Your task to perform on an android device: turn on showing notifications on the lock screen Image 0: 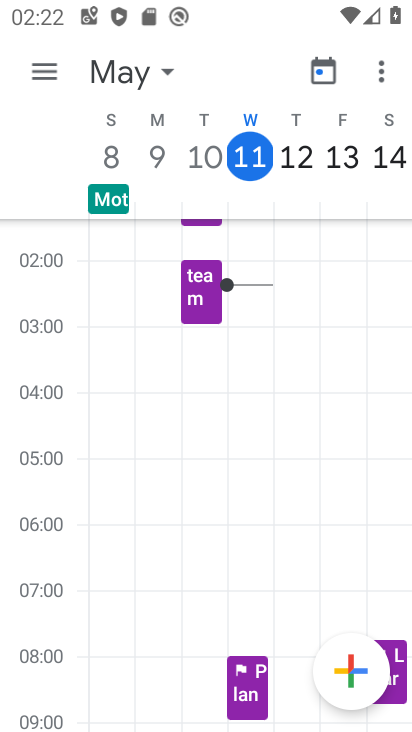
Step 0: press back button
Your task to perform on an android device: turn on showing notifications on the lock screen Image 1: 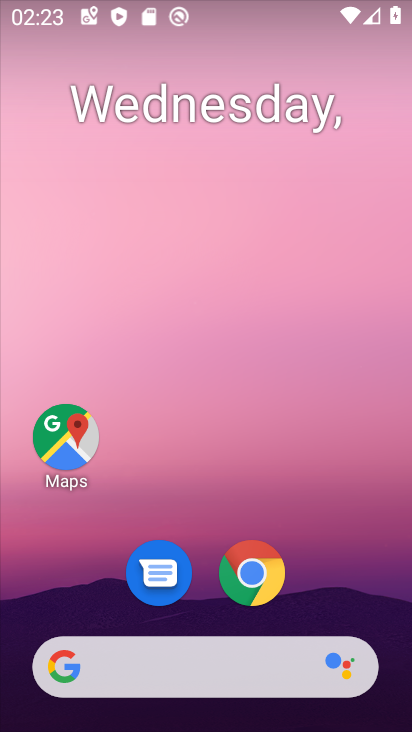
Step 1: drag from (331, 582) to (222, 0)
Your task to perform on an android device: turn on showing notifications on the lock screen Image 2: 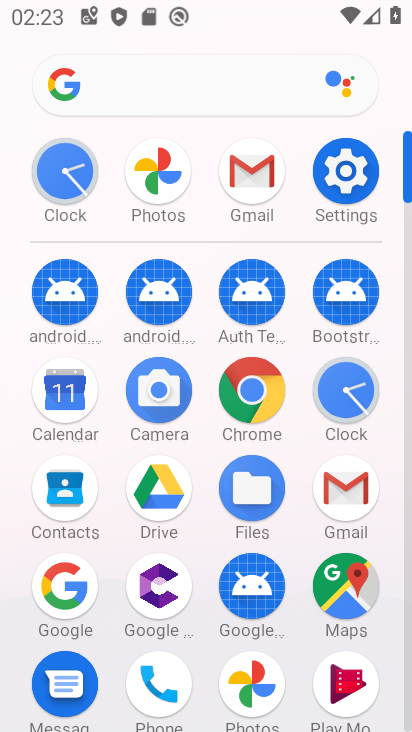
Step 2: click (344, 171)
Your task to perform on an android device: turn on showing notifications on the lock screen Image 3: 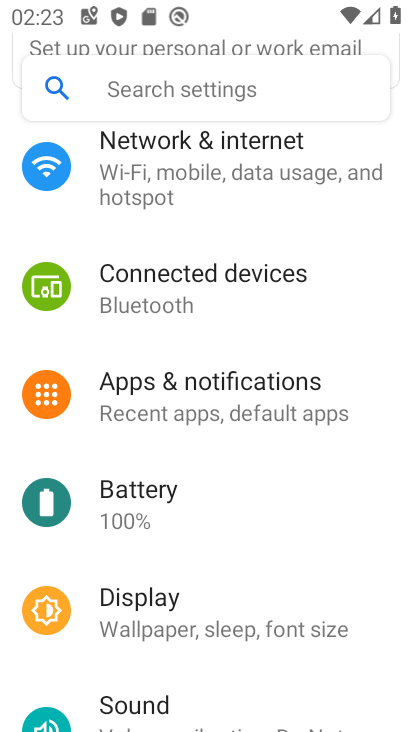
Step 3: drag from (223, 459) to (233, 363)
Your task to perform on an android device: turn on showing notifications on the lock screen Image 4: 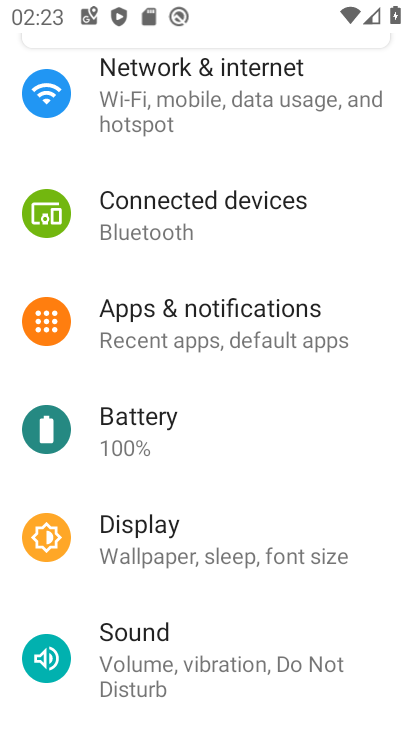
Step 4: click (223, 328)
Your task to perform on an android device: turn on showing notifications on the lock screen Image 5: 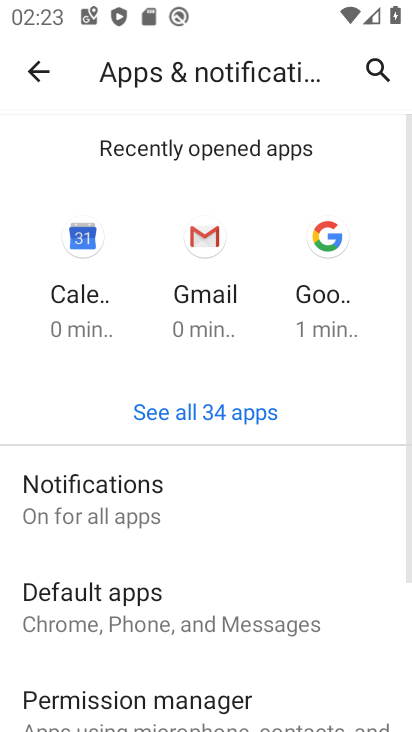
Step 5: click (123, 487)
Your task to perform on an android device: turn on showing notifications on the lock screen Image 6: 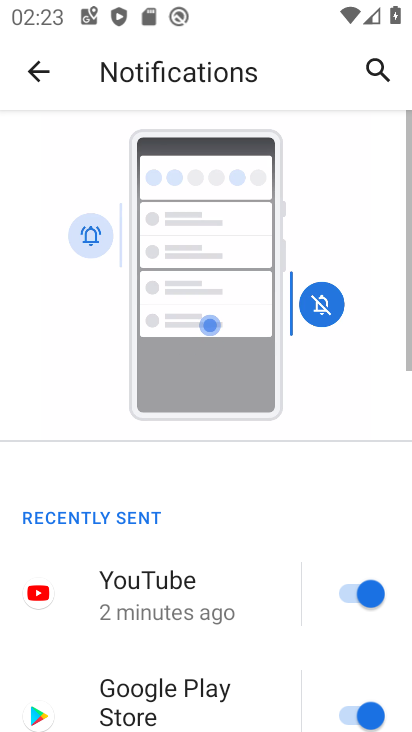
Step 6: drag from (219, 556) to (251, 328)
Your task to perform on an android device: turn on showing notifications on the lock screen Image 7: 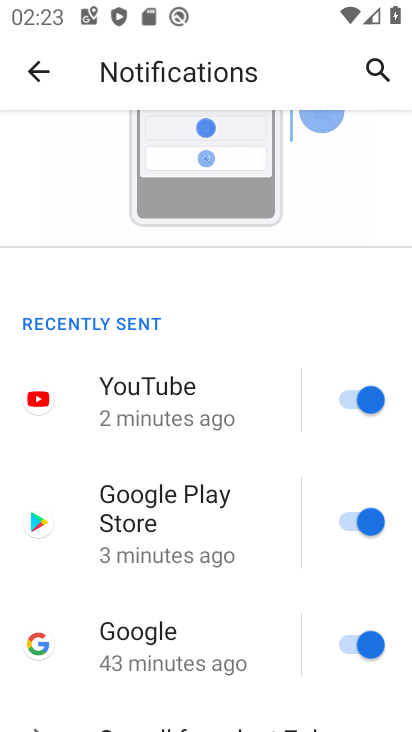
Step 7: drag from (215, 586) to (225, 355)
Your task to perform on an android device: turn on showing notifications on the lock screen Image 8: 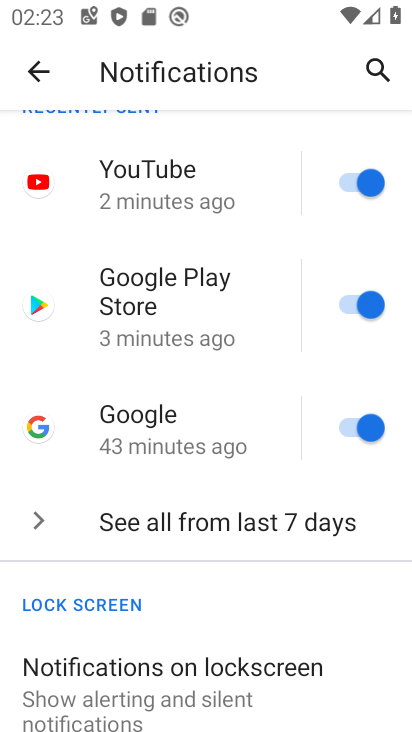
Step 8: drag from (149, 625) to (200, 456)
Your task to perform on an android device: turn on showing notifications on the lock screen Image 9: 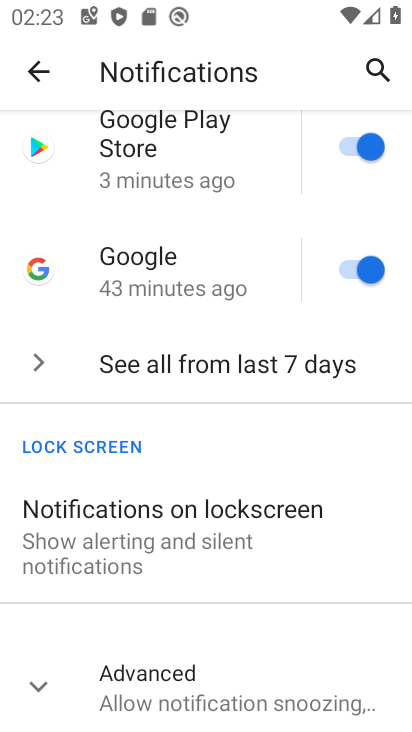
Step 9: click (222, 502)
Your task to perform on an android device: turn on showing notifications on the lock screen Image 10: 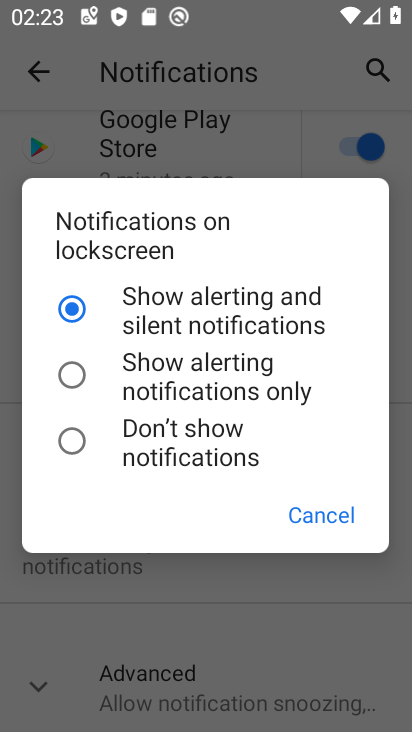
Step 10: click (71, 305)
Your task to perform on an android device: turn on showing notifications on the lock screen Image 11: 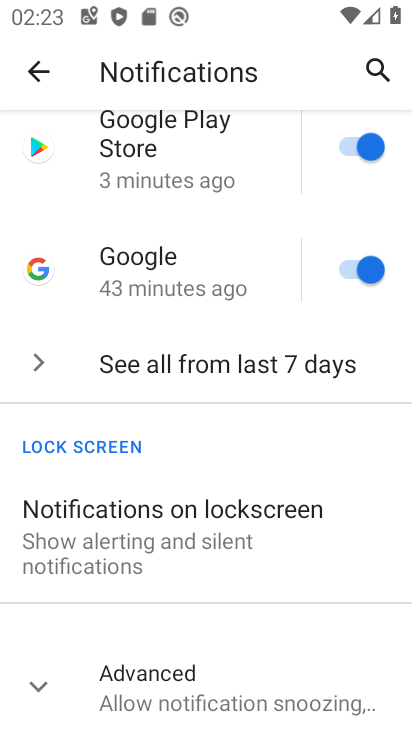
Step 11: task complete